Your task to perform on an android device: Open privacy settings Image 0: 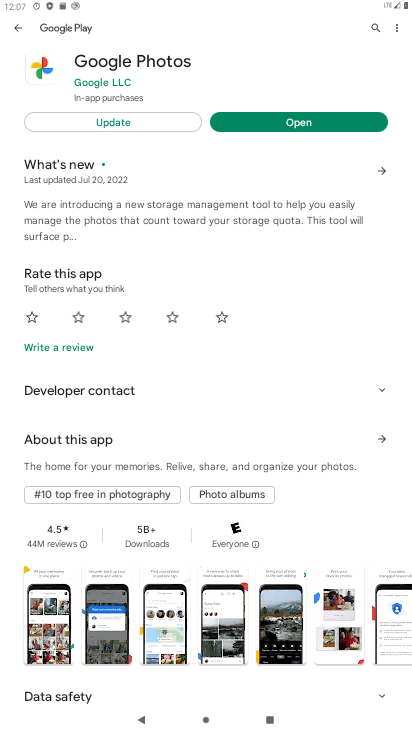
Step 0: press home button
Your task to perform on an android device: Open privacy settings Image 1: 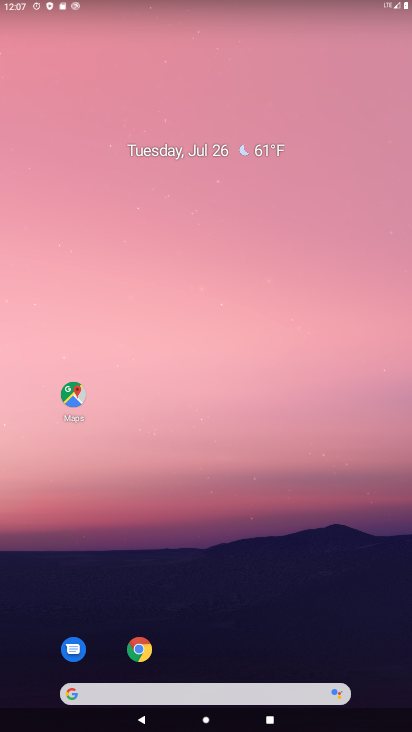
Step 1: drag from (207, 668) to (202, 66)
Your task to perform on an android device: Open privacy settings Image 2: 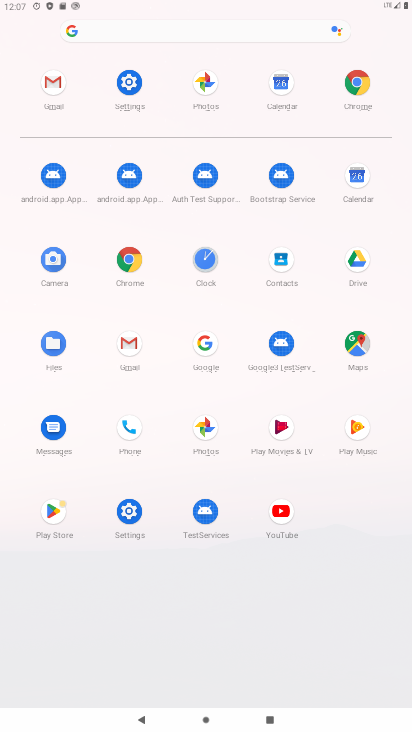
Step 2: click (132, 81)
Your task to perform on an android device: Open privacy settings Image 3: 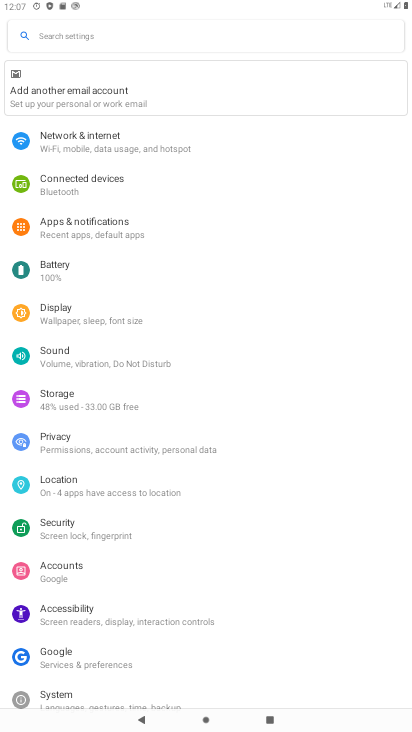
Step 3: drag from (136, 605) to (139, 285)
Your task to perform on an android device: Open privacy settings Image 4: 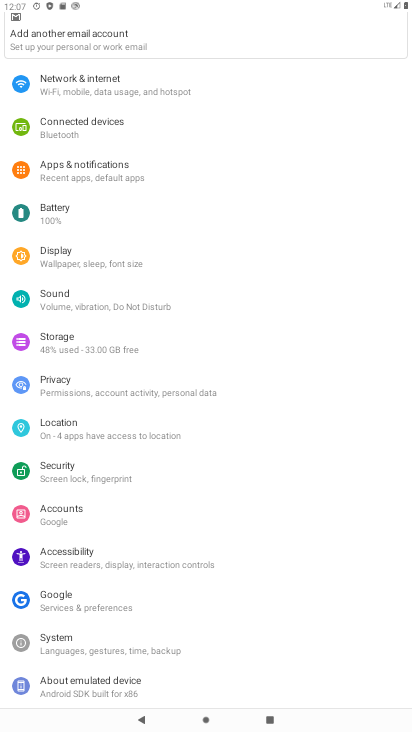
Step 4: click (71, 379)
Your task to perform on an android device: Open privacy settings Image 5: 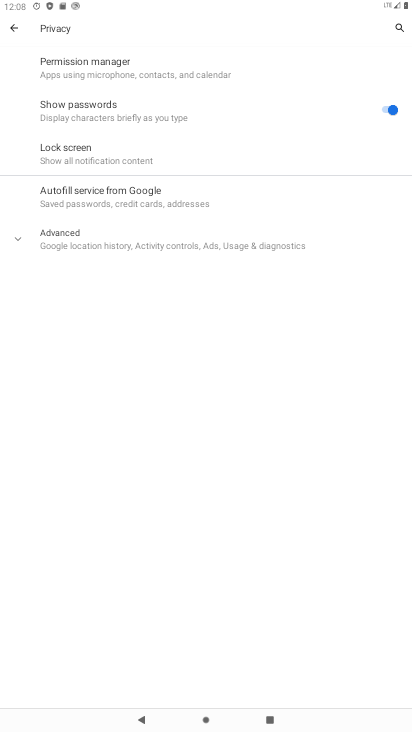
Step 5: click (96, 229)
Your task to perform on an android device: Open privacy settings Image 6: 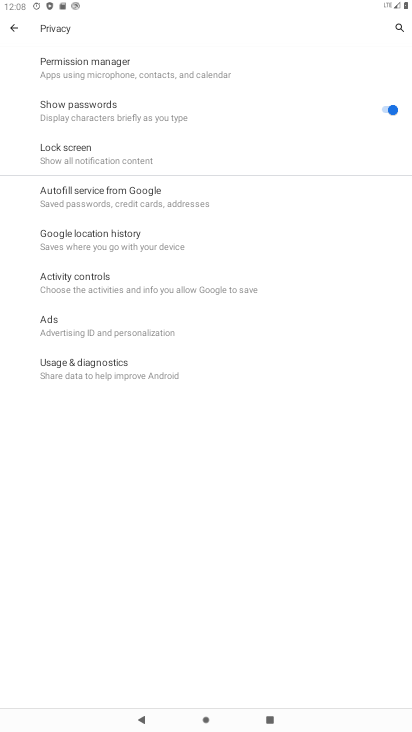
Step 6: task complete